Your task to perform on an android device: read, delete, or share a saved page in the chrome app Image 0: 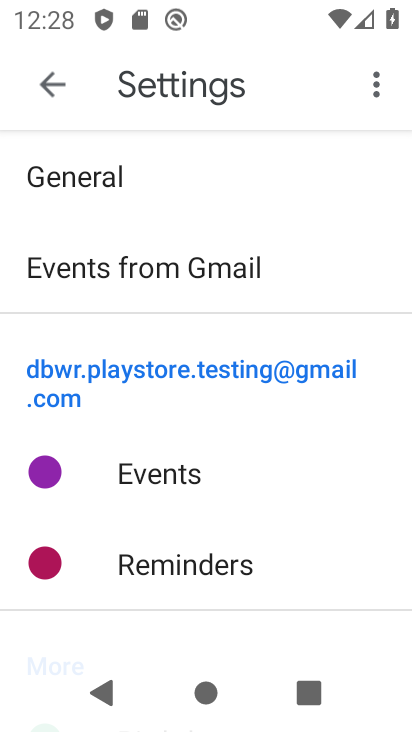
Step 0: press back button
Your task to perform on an android device: read, delete, or share a saved page in the chrome app Image 1: 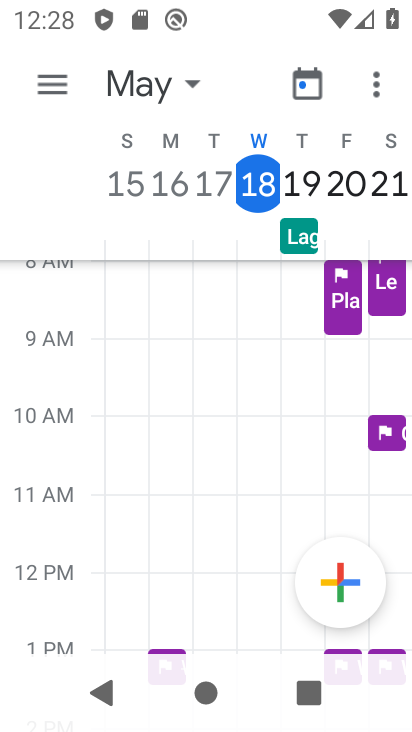
Step 1: press back button
Your task to perform on an android device: read, delete, or share a saved page in the chrome app Image 2: 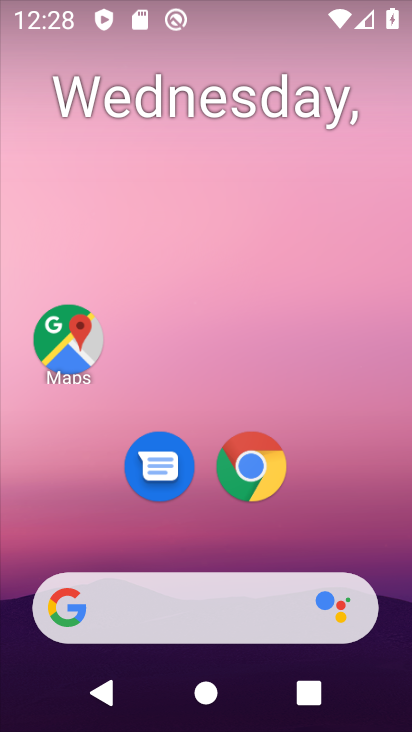
Step 2: click (252, 466)
Your task to perform on an android device: read, delete, or share a saved page in the chrome app Image 3: 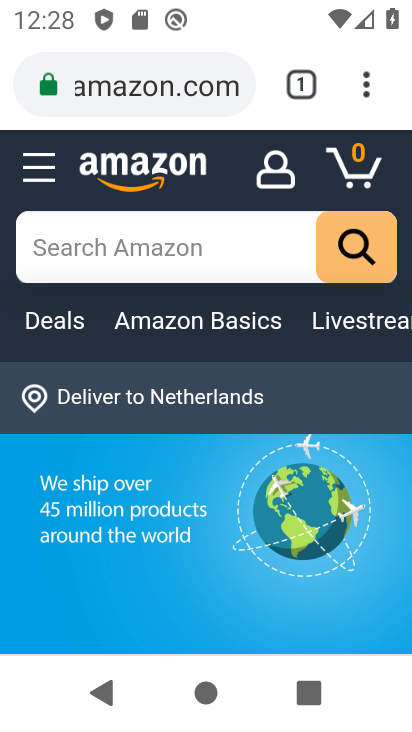
Step 3: click (367, 84)
Your task to perform on an android device: read, delete, or share a saved page in the chrome app Image 4: 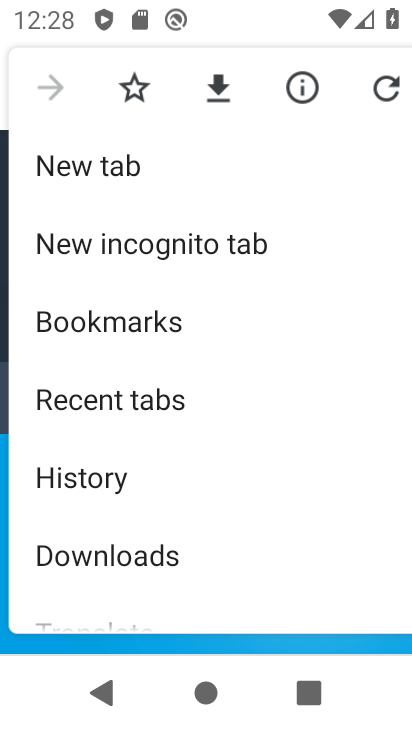
Step 4: click (101, 558)
Your task to perform on an android device: read, delete, or share a saved page in the chrome app Image 5: 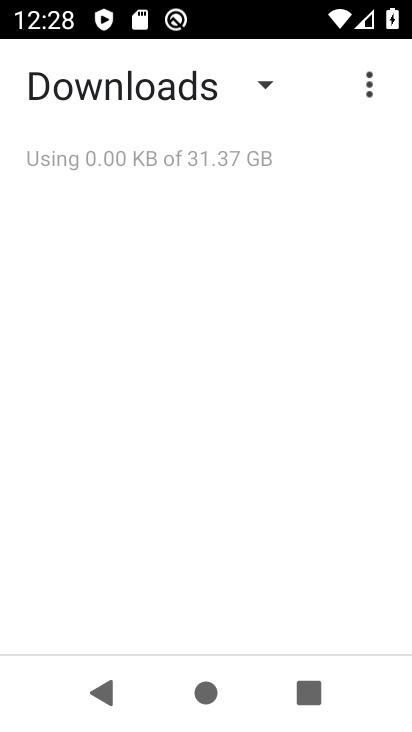
Step 5: task complete